Your task to perform on an android device: Open Google Chrome and click the shortcut for Amazon.com Image 0: 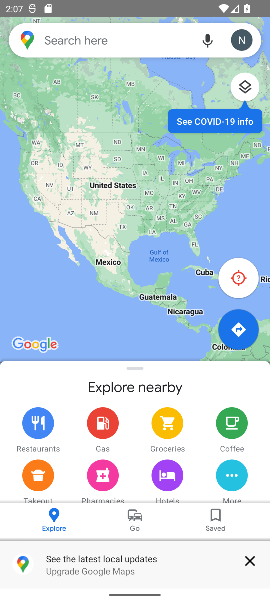
Step 0: task complete